Your task to perform on an android device: turn on data saver in the chrome app Image 0: 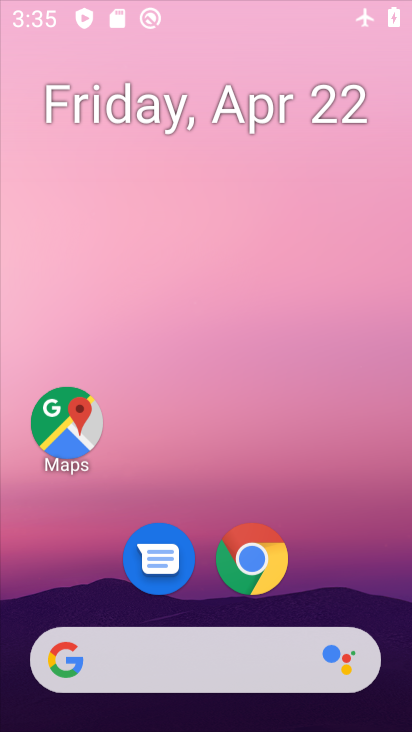
Step 0: press home button
Your task to perform on an android device: turn on data saver in the chrome app Image 1: 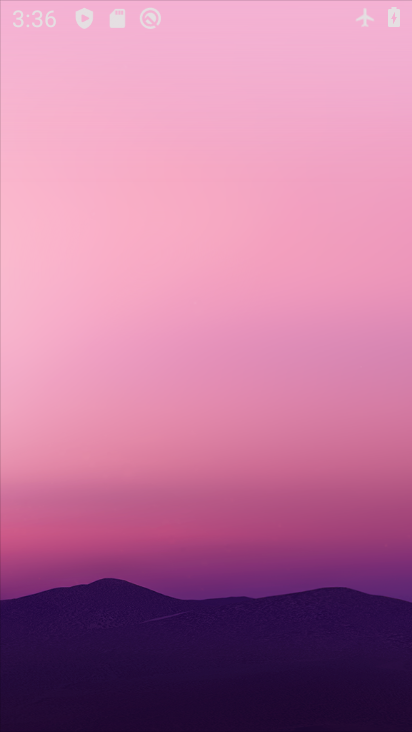
Step 1: drag from (351, 562) to (303, 116)
Your task to perform on an android device: turn on data saver in the chrome app Image 2: 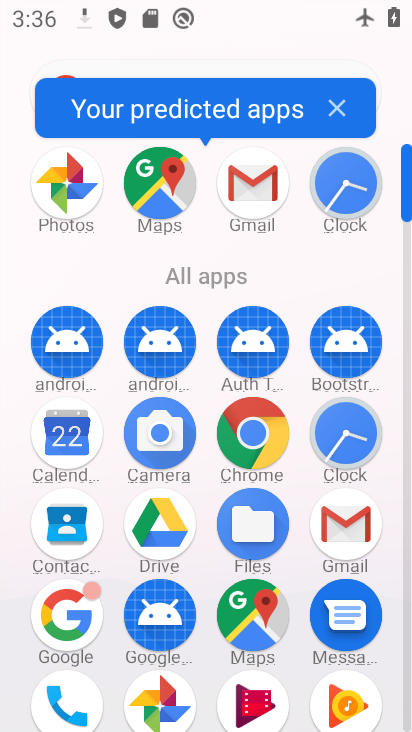
Step 2: click (258, 443)
Your task to perform on an android device: turn on data saver in the chrome app Image 3: 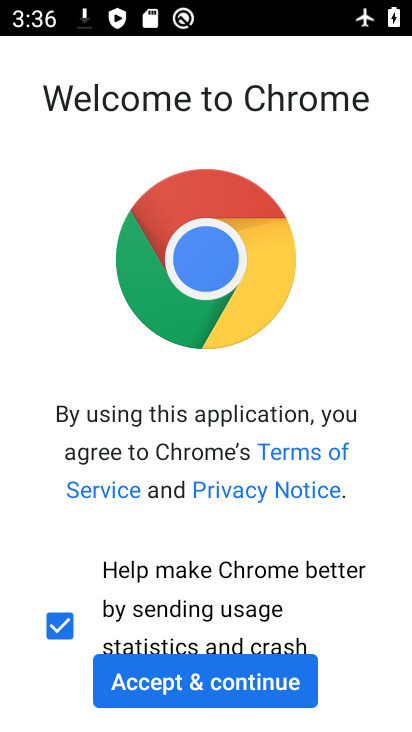
Step 3: click (260, 692)
Your task to perform on an android device: turn on data saver in the chrome app Image 4: 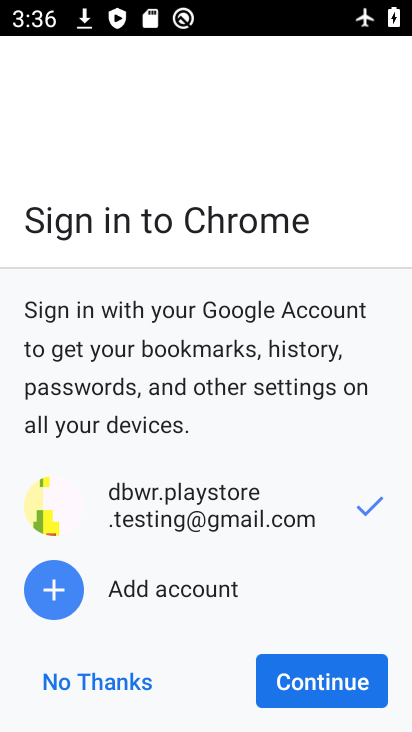
Step 4: click (118, 676)
Your task to perform on an android device: turn on data saver in the chrome app Image 5: 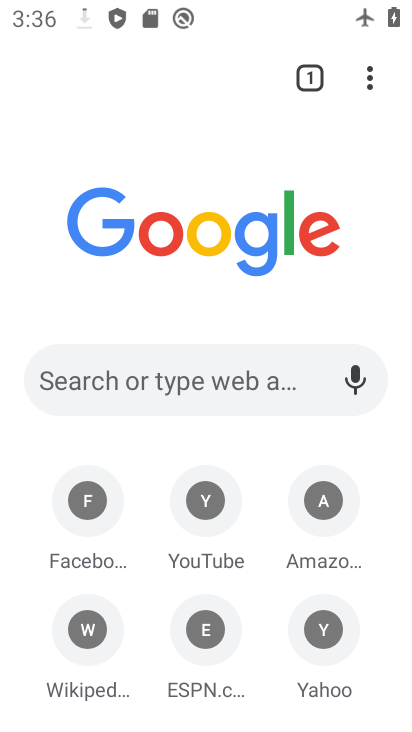
Step 5: click (371, 82)
Your task to perform on an android device: turn on data saver in the chrome app Image 6: 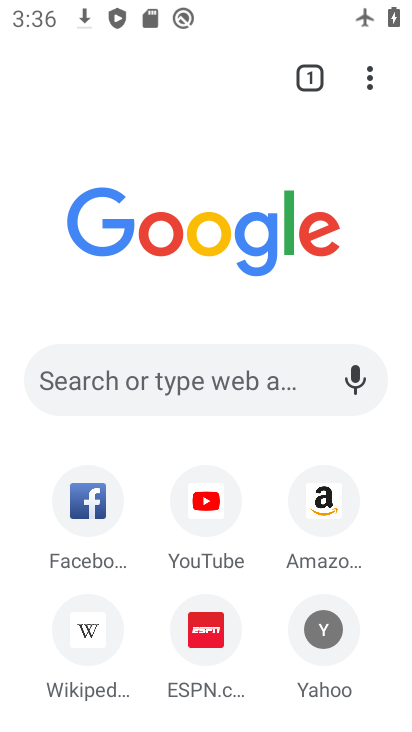
Step 6: click (373, 90)
Your task to perform on an android device: turn on data saver in the chrome app Image 7: 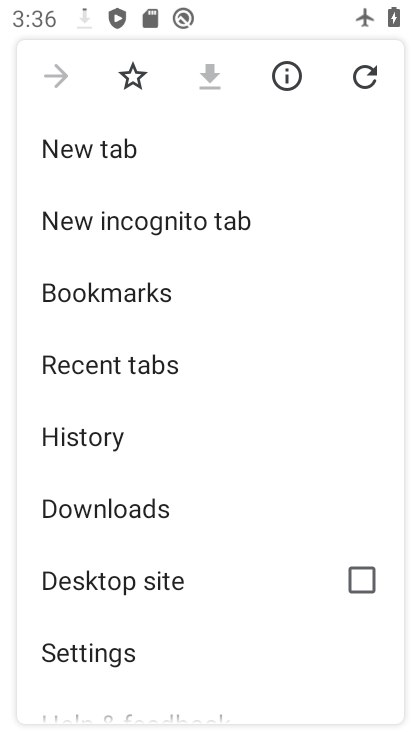
Step 7: click (116, 649)
Your task to perform on an android device: turn on data saver in the chrome app Image 8: 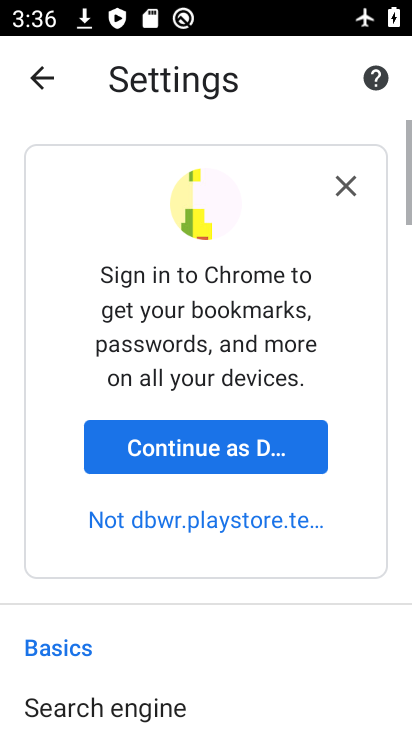
Step 8: drag from (176, 631) to (176, 34)
Your task to perform on an android device: turn on data saver in the chrome app Image 9: 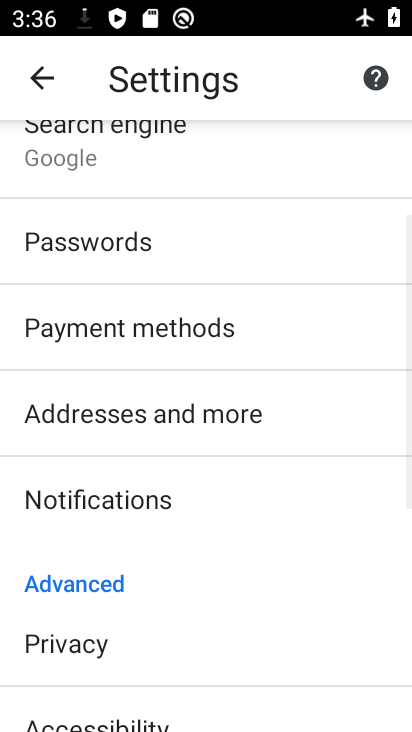
Step 9: drag from (191, 632) to (187, 101)
Your task to perform on an android device: turn on data saver in the chrome app Image 10: 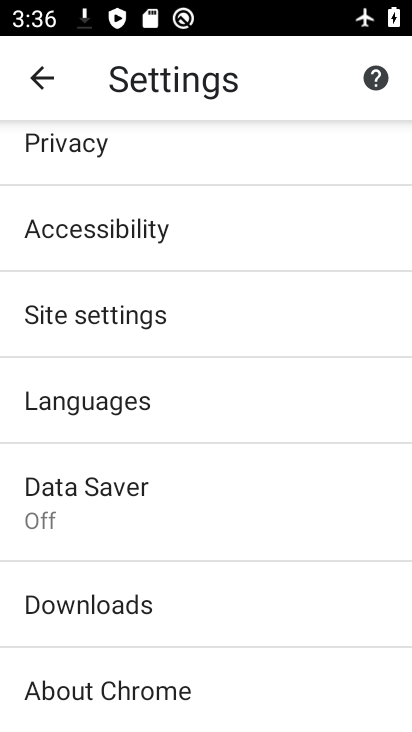
Step 10: click (125, 497)
Your task to perform on an android device: turn on data saver in the chrome app Image 11: 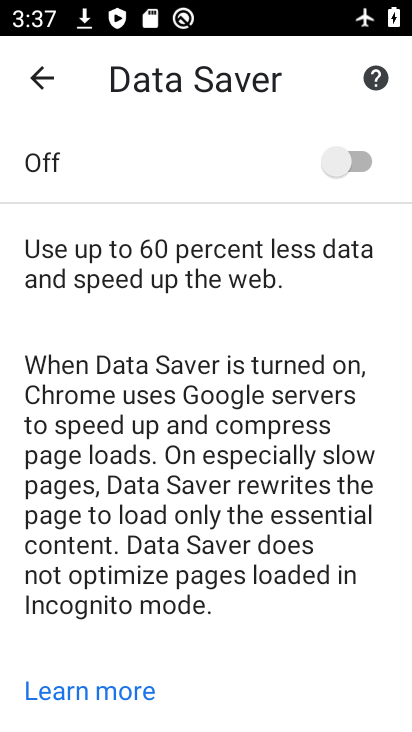
Step 11: click (339, 145)
Your task to perform on an android device: turn on data saver in the chrome app Image 12: 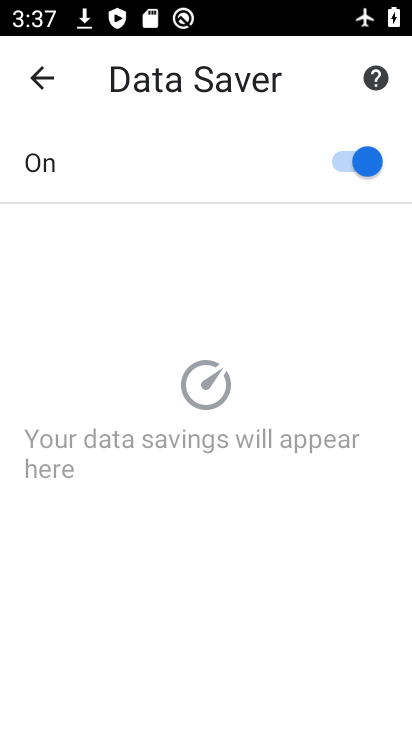
Step 12: task complete